Your task to perform on an android device: Search for hotels in San Diego Image 0: 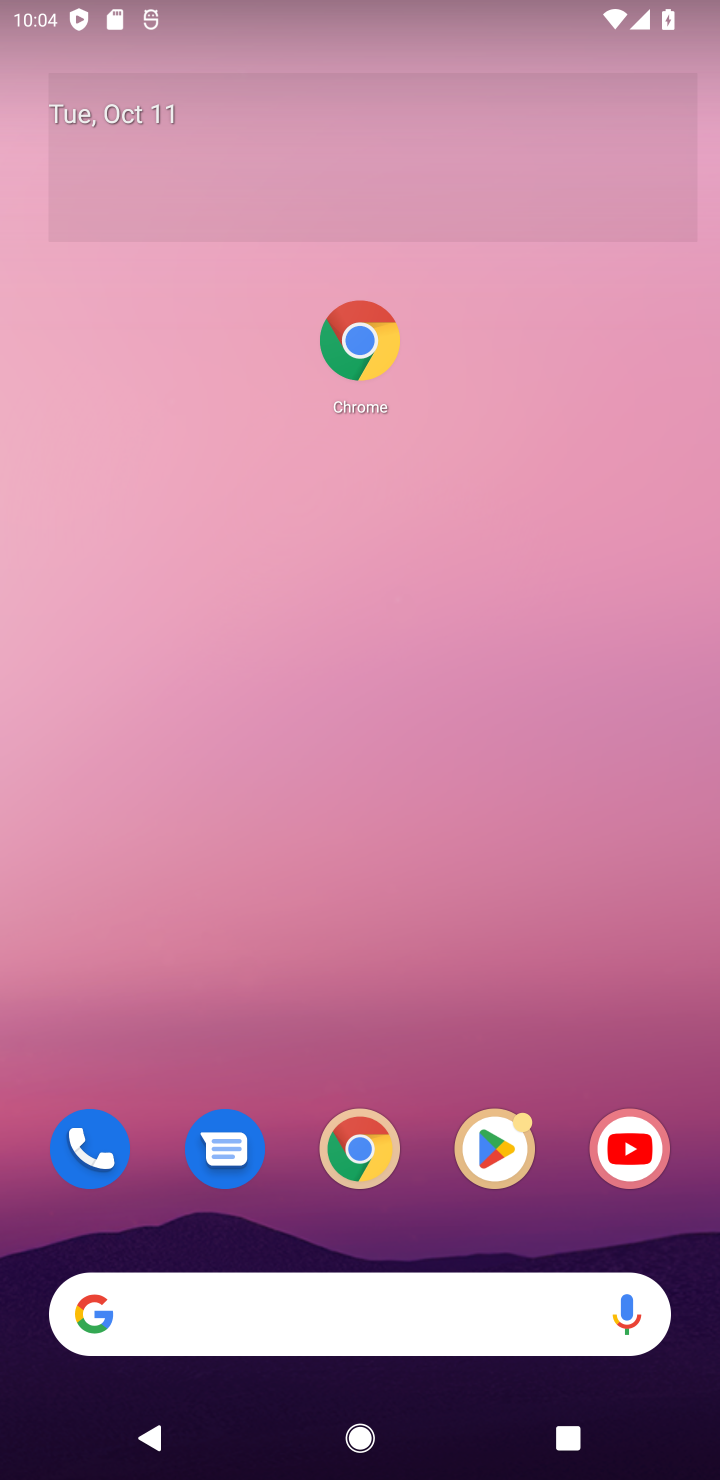
Step 0: drag from (220, 1182) to (455, 354)
Your task to perform on an android device: Search for hotels in San Diego Image 1: 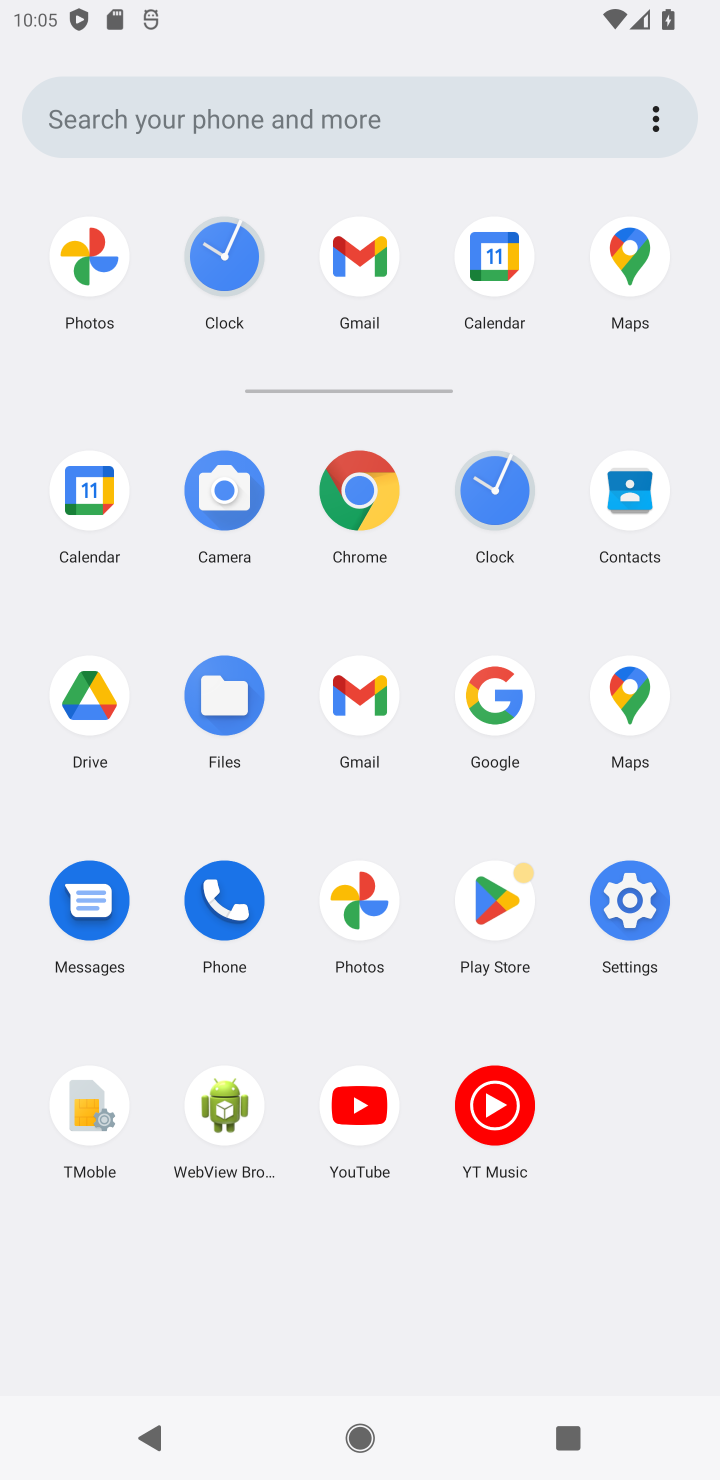
Step 1: click (365, 480)
Your task to perform on an android device: Search for hotels in San Diego Image 2: 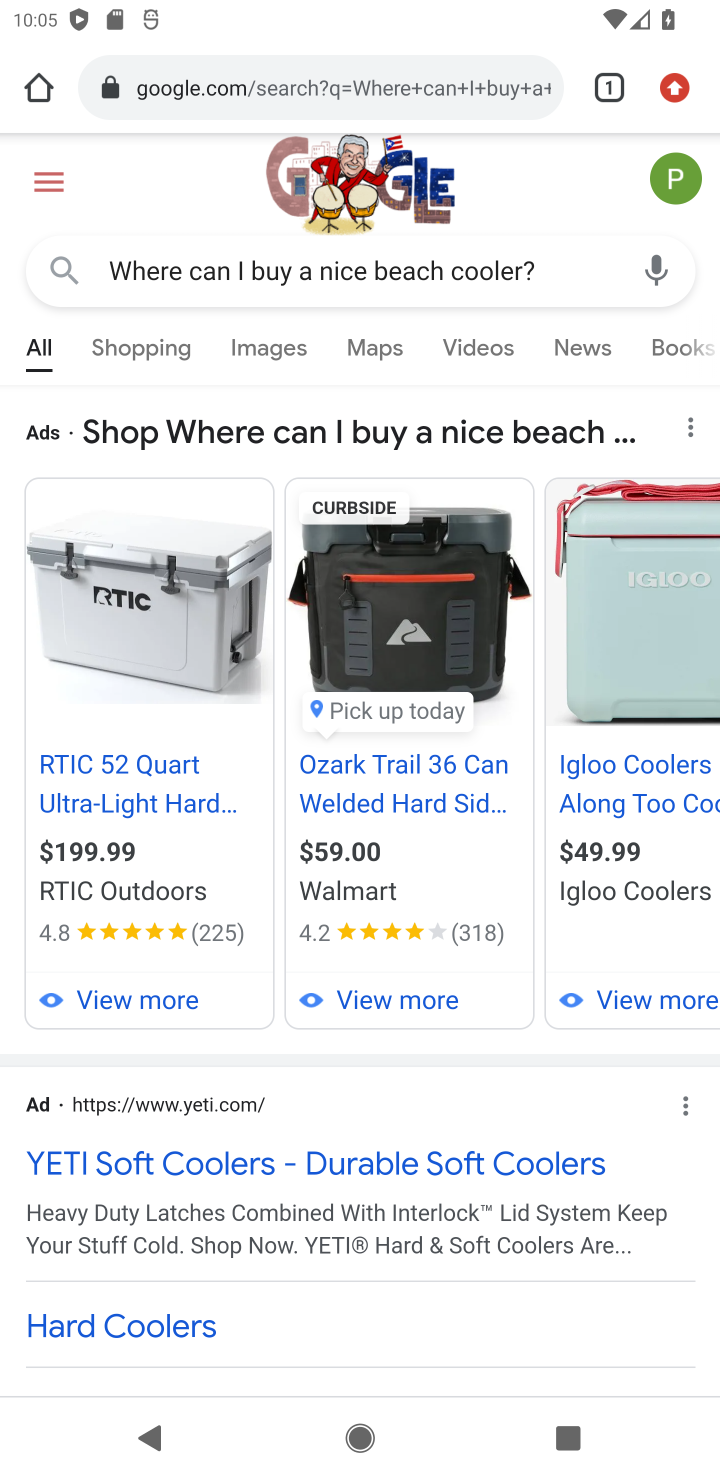
Step 2: click (287, 101)
Your task to perform on an android device: Search for hotels in San Diego Image 3: 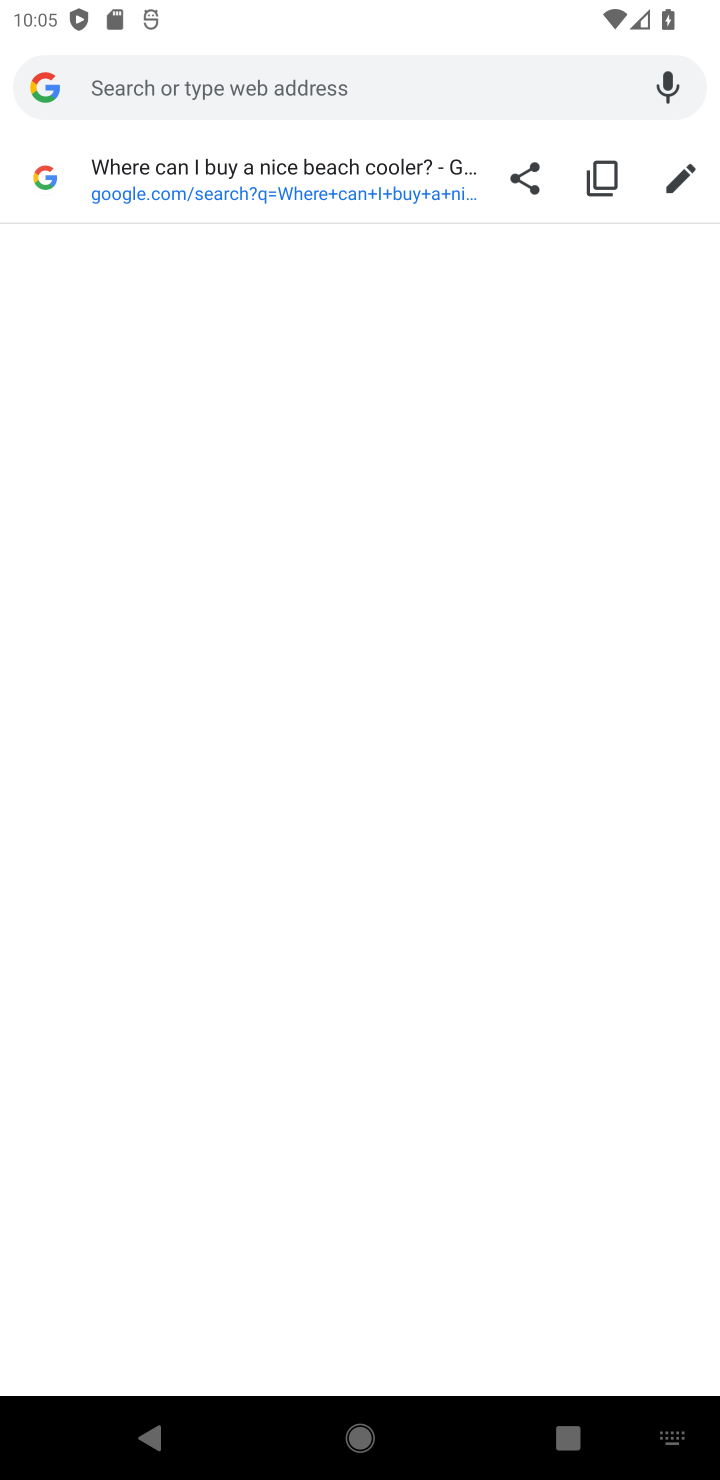
Step 3: type "hotels in San Diego"
Your task to perform on an android device: Search for hotels in San Diego Image 4: 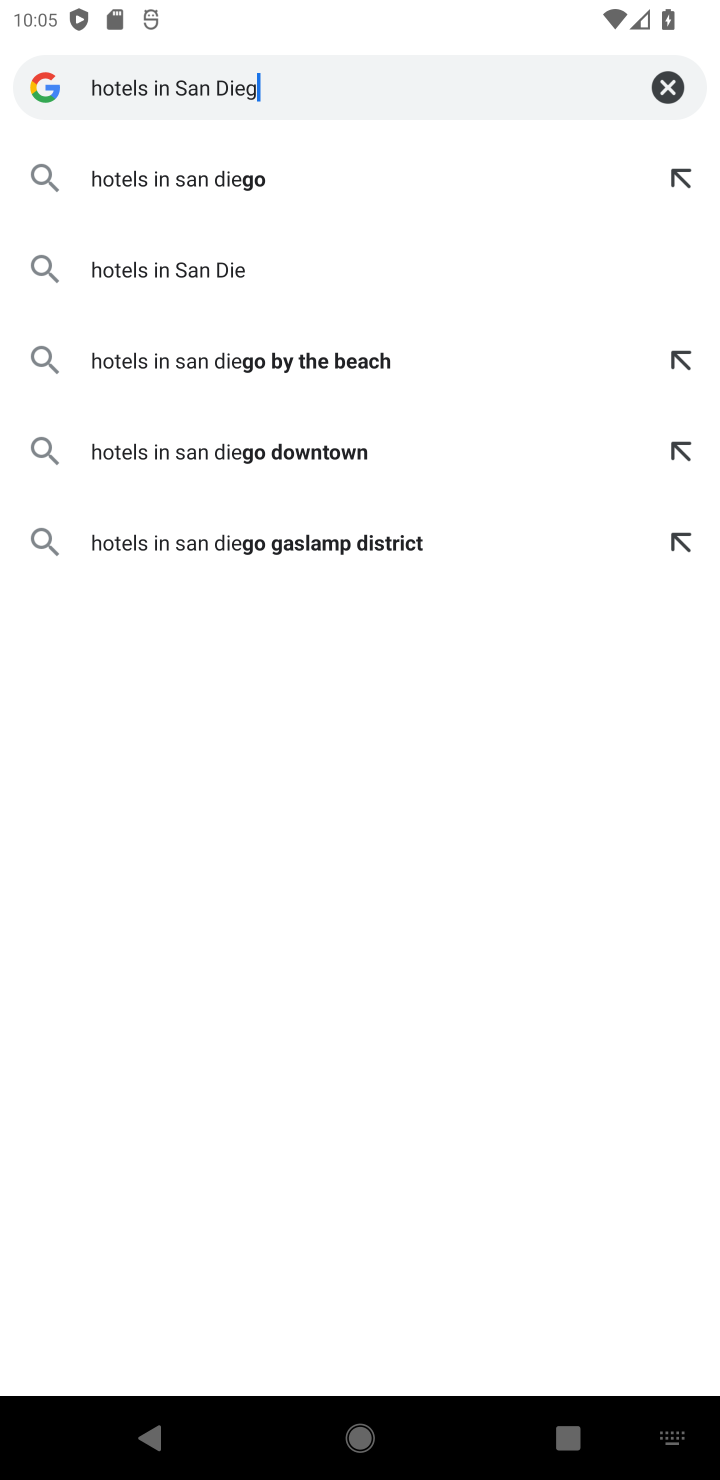
Step 4: press enter
Your task to perform on an android device: Search for hotels in San Diego Image 5: 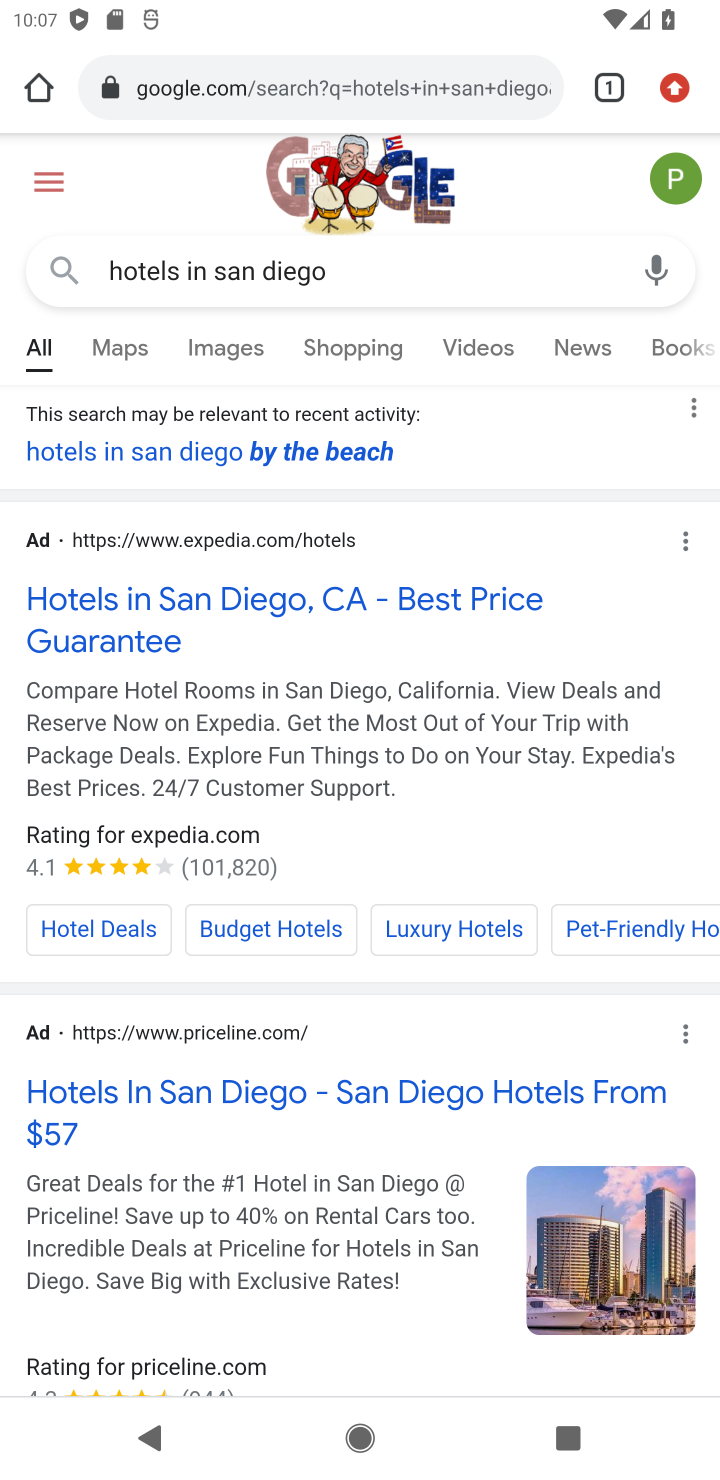
Step 5: task complete